Your task to perform on an android device: set an alarm Image 0: 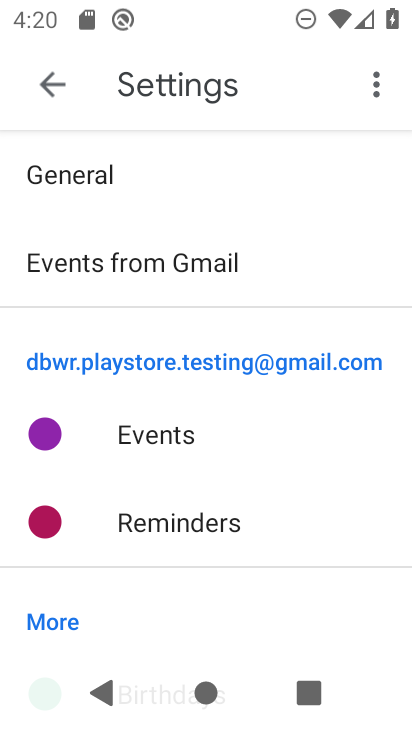
Step 0: press home button
Your task to perform on an android device: set an alarm Image 1: 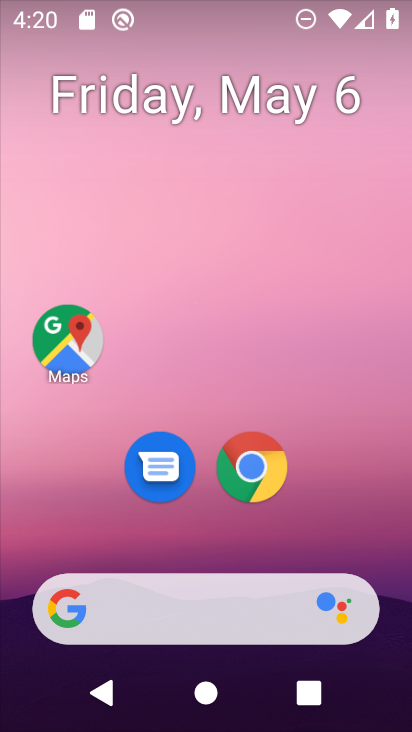
Step 1: drag from (351, 538) to (281, 185)
Your task to perform on an android device: set an alarm Image 2: 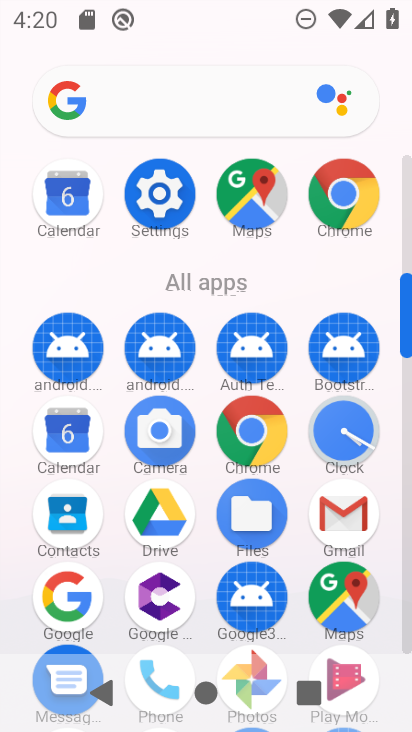
Step 2: click (338, 422)
Your task to perform on an android device: set an alarm Image 3: 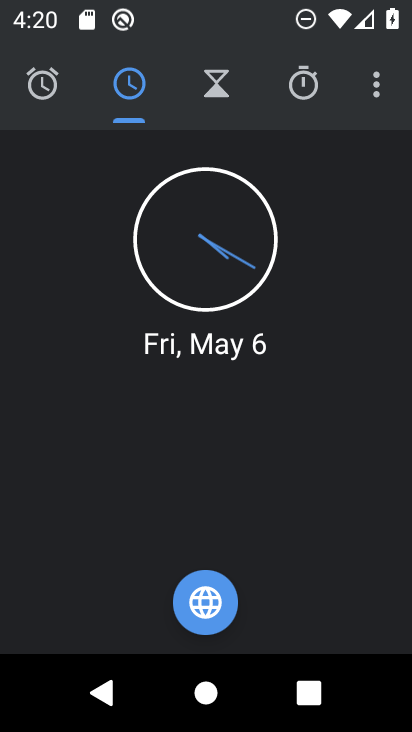
Step 3: click (58, 95)
Your task to perform on an android device: set an alarm Image 4: 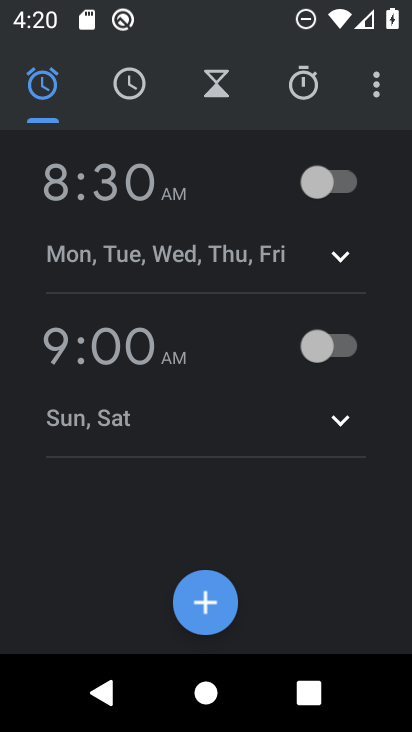
Step 4: click (133, 205)
Your task to perform on an android device: set an alarm Image 5: 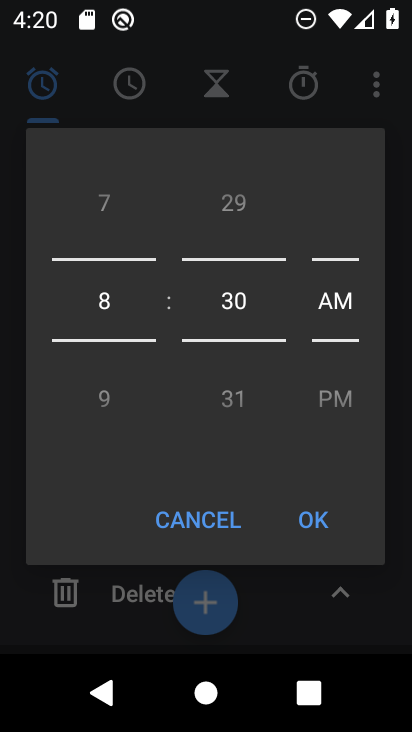
Step 5: drag from (104, 299) to (117, 208)
Your task to perform on an android device: set an alarm Image 6: 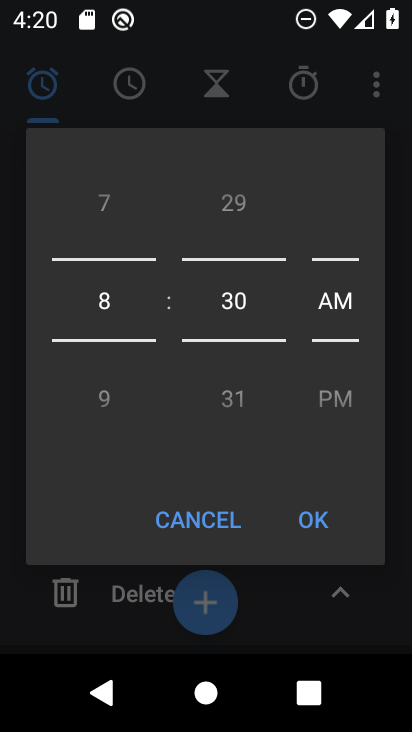
Step 6: drag from (106, 310) to (95, 162)
Your task to perform on an android device: set an alarm Image 7: 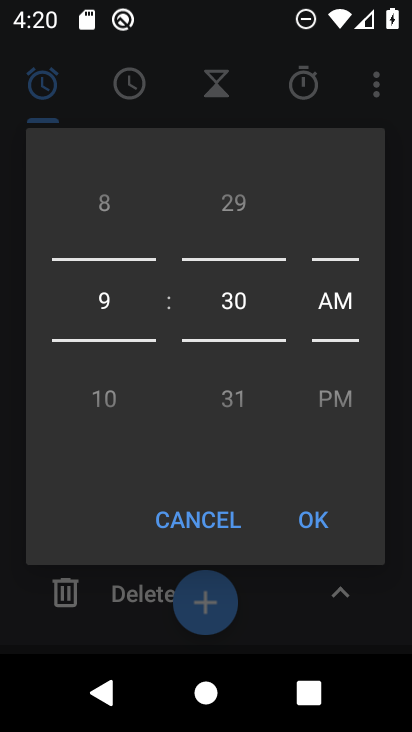
Step 7: click (299, 520)
Your task to perform on an android device: set an alarm Image 8: 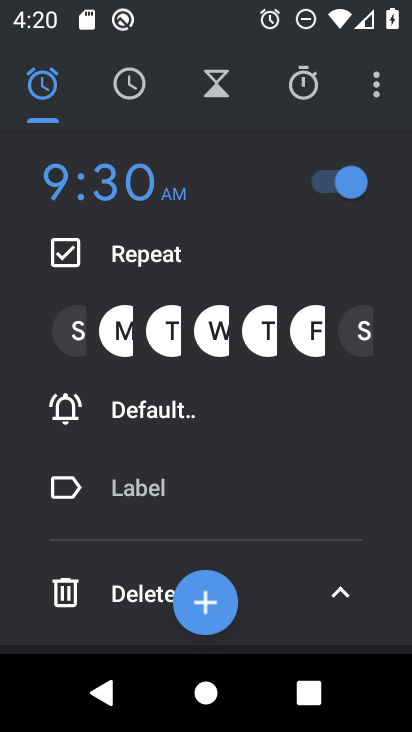
Step 8: click (212, 609)
Your task to perform on an android device: set an alarm Image 9: 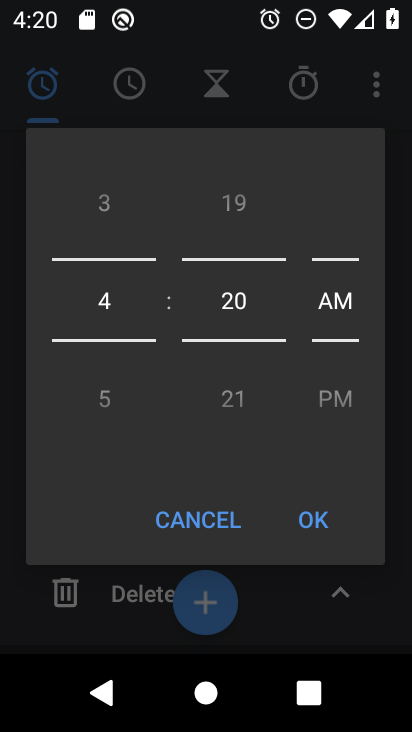
Step 9: click (299, 525)
Your task to perform on an android device: set an alarm Image 10: 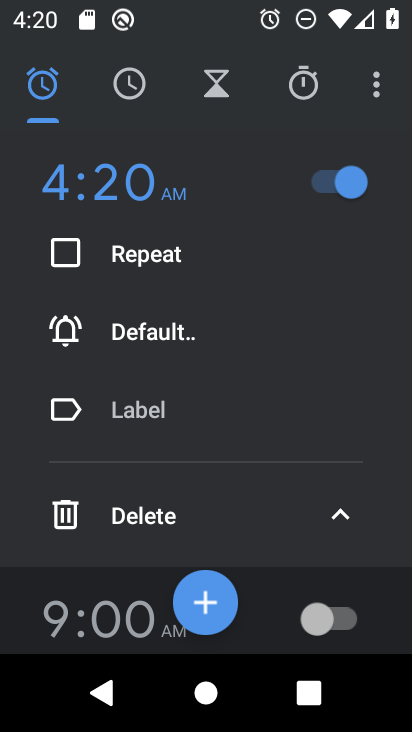
Step 10: click (332, 520)
Your task to perform on an android device: set an alarm Image 11: 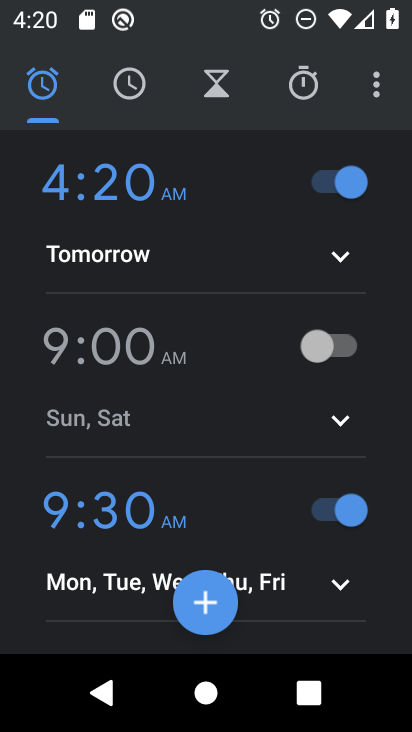
Step 11: task complete